Your task to perform on an android device: clear all cookies in the chrome app Image 0: 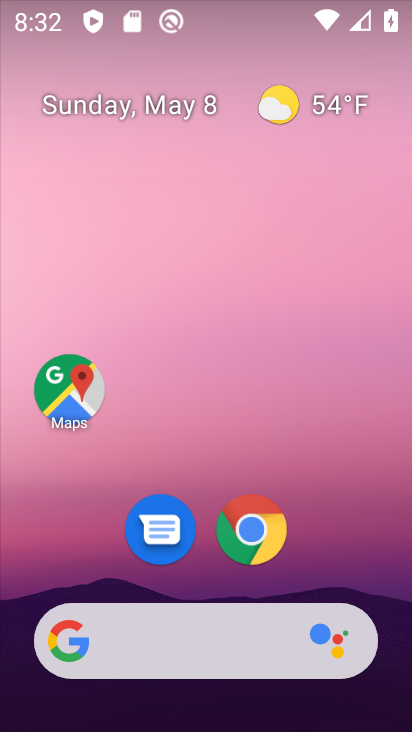
Step 0: drag from (354, 539) to (348, 147)
Your task to perform on an android device: clear all cookies in the chrome app Image 1: 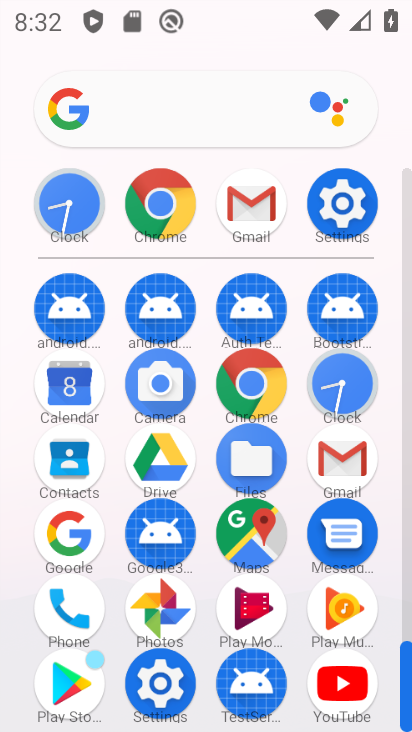
Step 1: click (259, 383)
Your task to perform on an android device: clear all cookies in the chrome app Image 2: 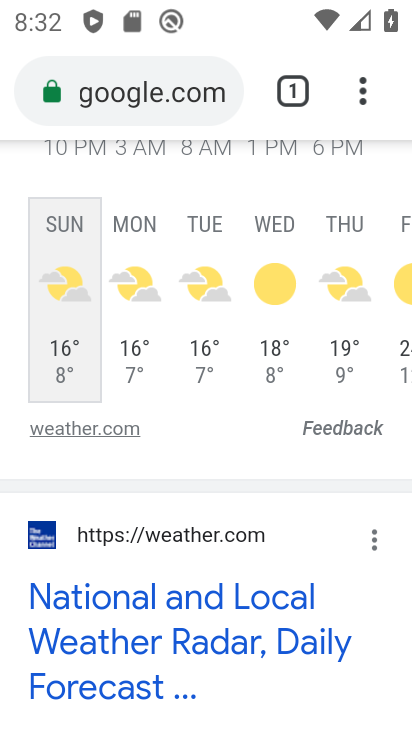
Step 2: drag from (366, 106) to (158, 528)
Your task to perform on an android device: clear all cookies in the chrome app Image 3: 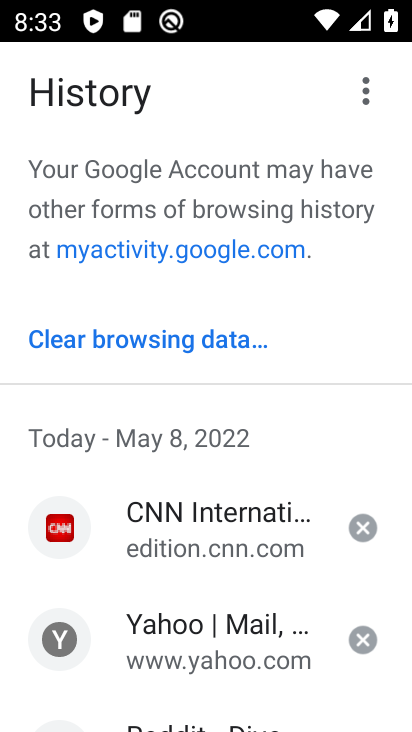
Step 3: click (250, 335)
Your task to perform on an android device: clear all cookies in the chrome app Image 4: 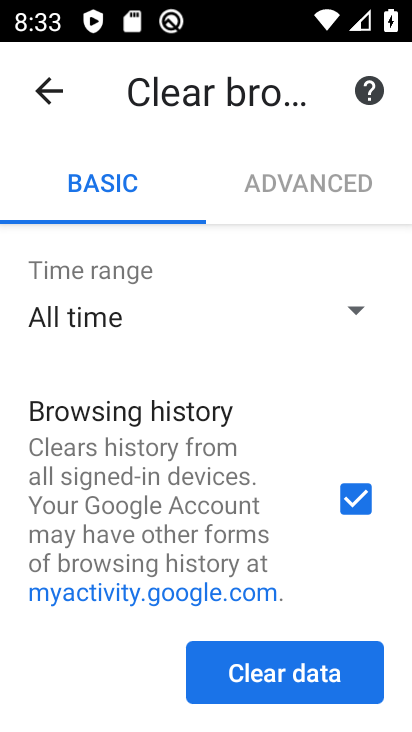
Step 4: click (261, 673)
Your task to perform on an android device: clear all cookies in the chrome app Image 5: 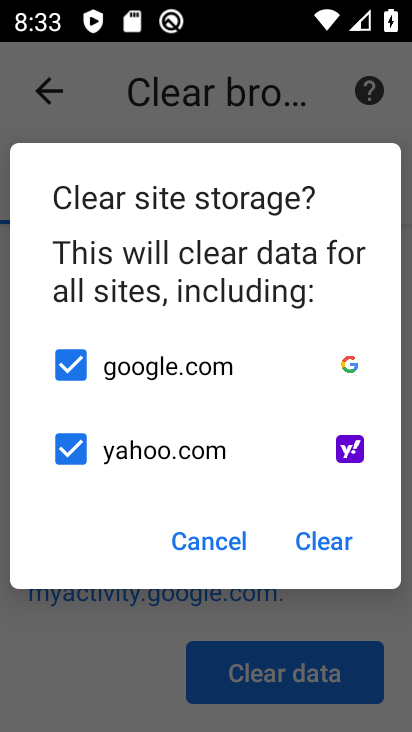
Step 5: click (206, 535)
Your task to perform on an android device: clear all cookies in the chrome app Image 6: 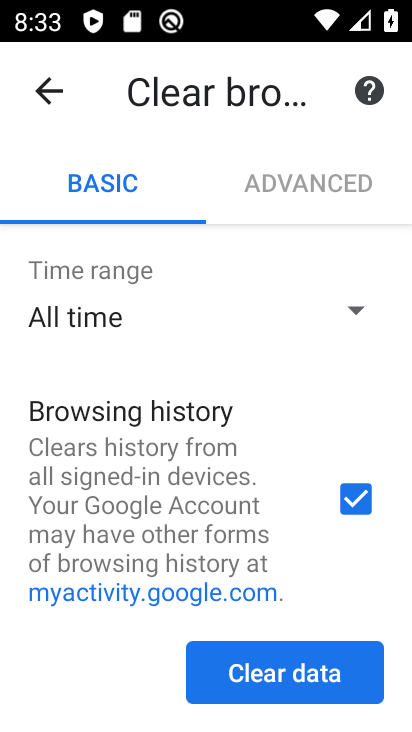
Step 6: drag from (199, 558) to (254, 253)
Your task to perform on an android device: clear all cookies in the chrome app Image 7: 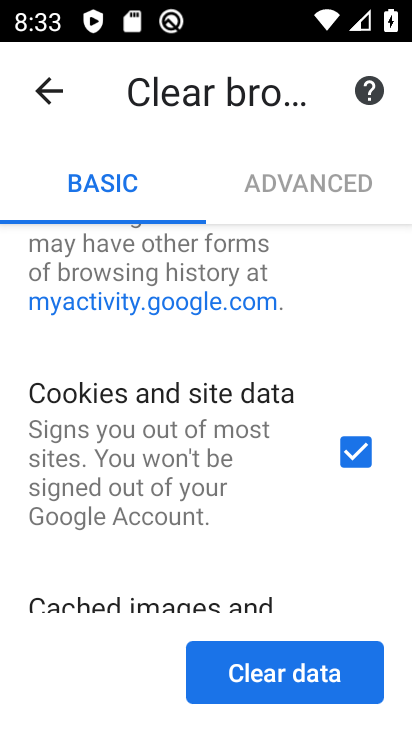
Step 7: drag from (314, 326) to (315, 487)
Your task to perform on an android device: clear all cookies in the chrome app Image 8: 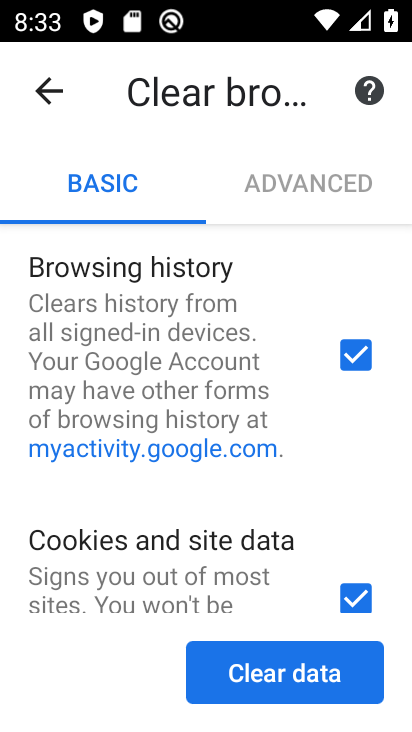
Step 8: click (354, 367)
Your task to perform on an android device: clear all cookies in the chrome app Image 9: 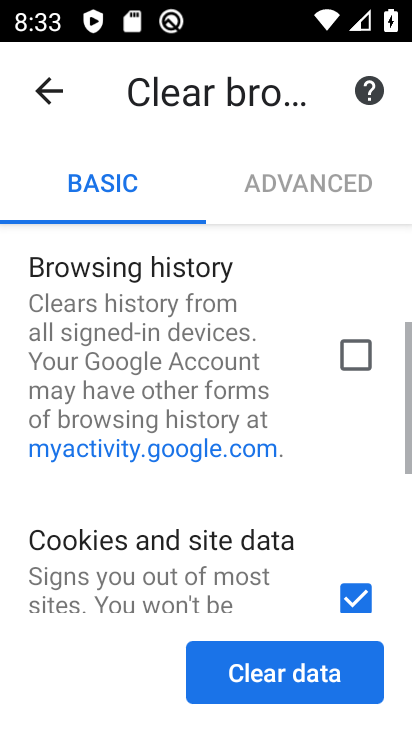
Step 9: click (285, 669)
Your task to perform on an android device: clear all cookies in the chrome app Image 10: 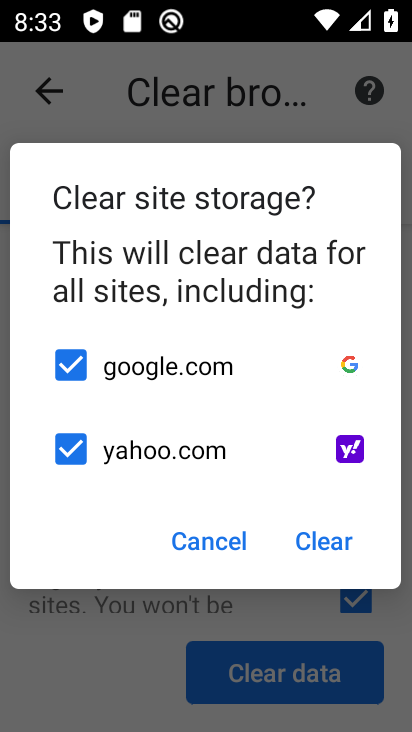
Step 10: click (320, 553)
Your task to perform on an android device: clear all cookies in the chrome app Image 11: 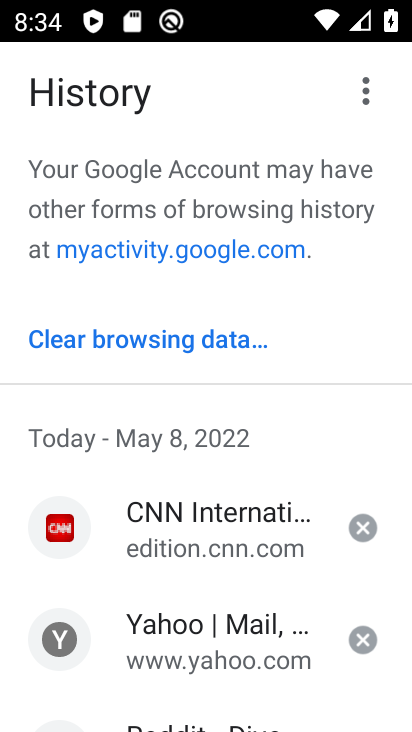
Step 11: task complete